Your task to perform on an android device: Open maps Image 0: 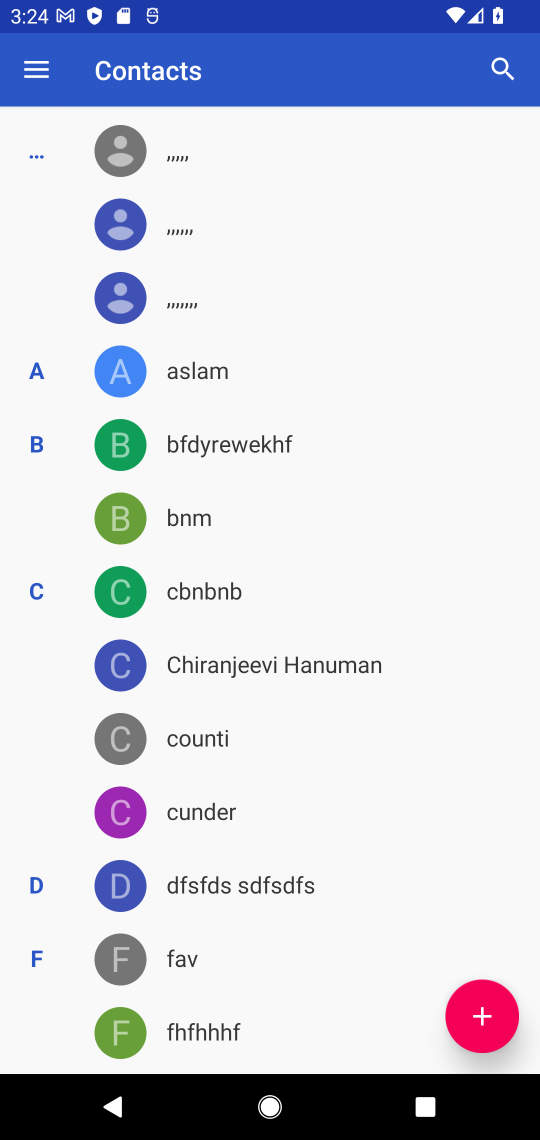
Step 0: press home button
Your task to perform on an android device: Open maps Image 1: 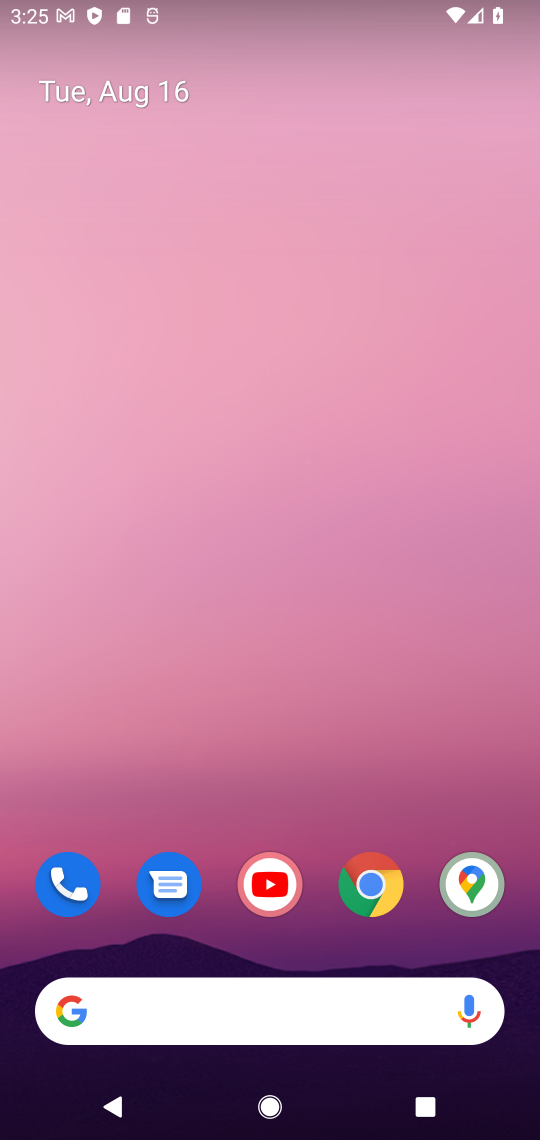
Step 1: click (463, 857)
Your task to perform on an android device: Open maps Image 2: 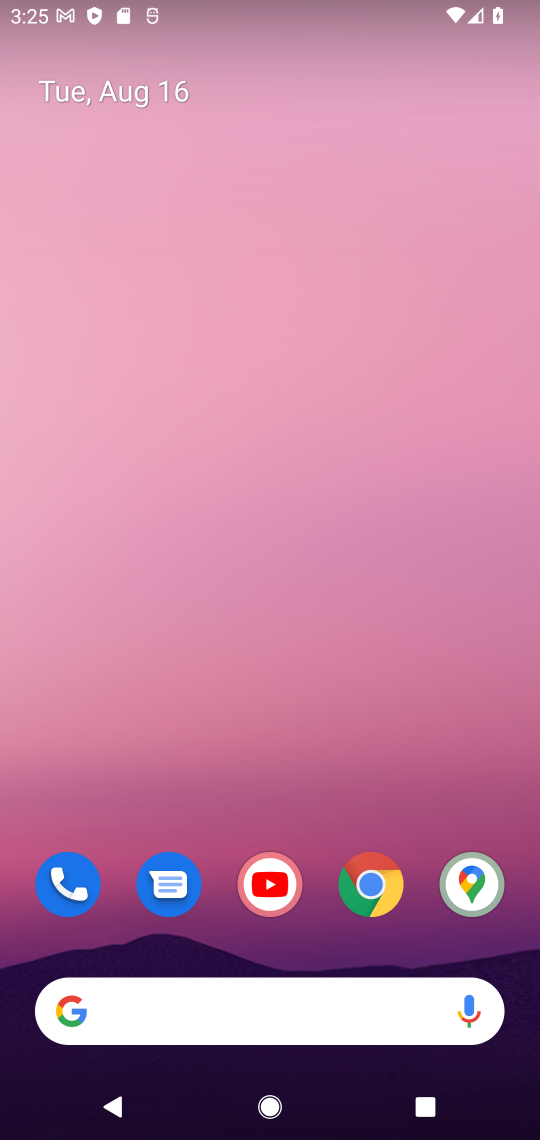
Step 2: click (448, 875)
Your task to perform on an android device: Open maps Image 3: 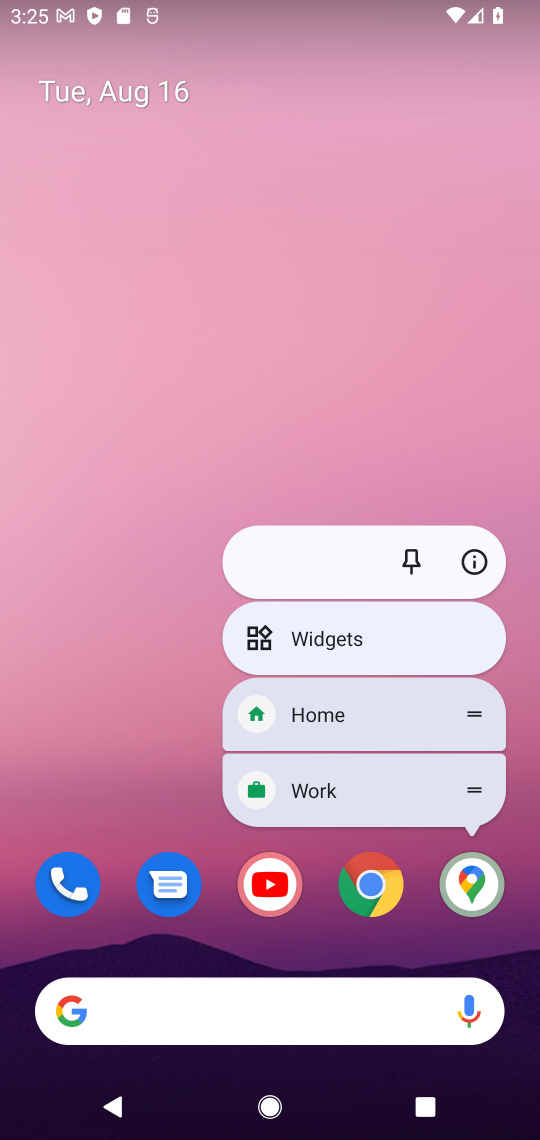
Step 3: click (461, 870)
Your task to perform on an android device: Open maps Image 4: 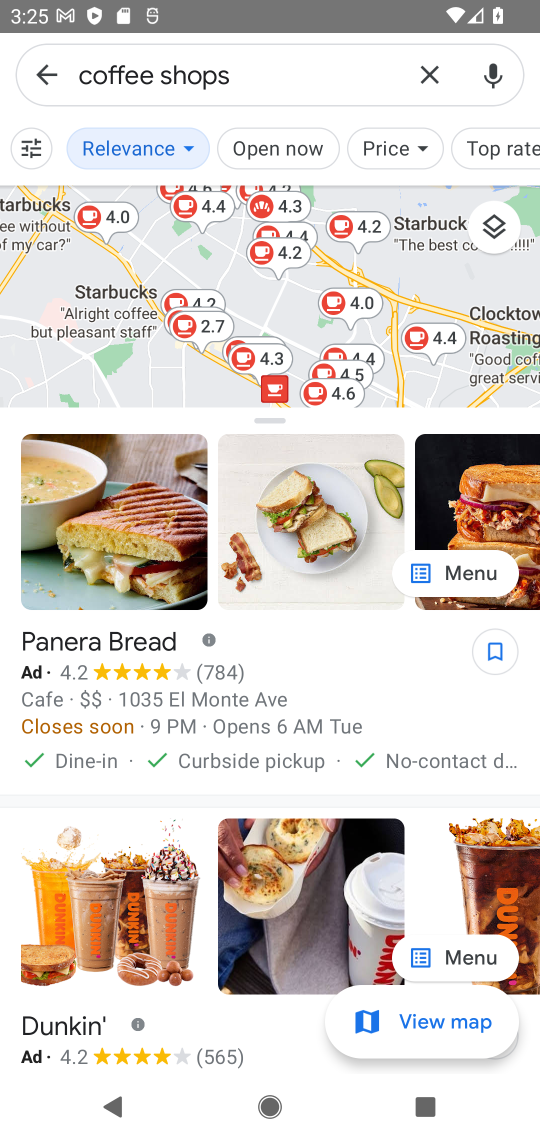
Step 4: task complete